Your task to perform on an android device: Open the web browser Image 0: 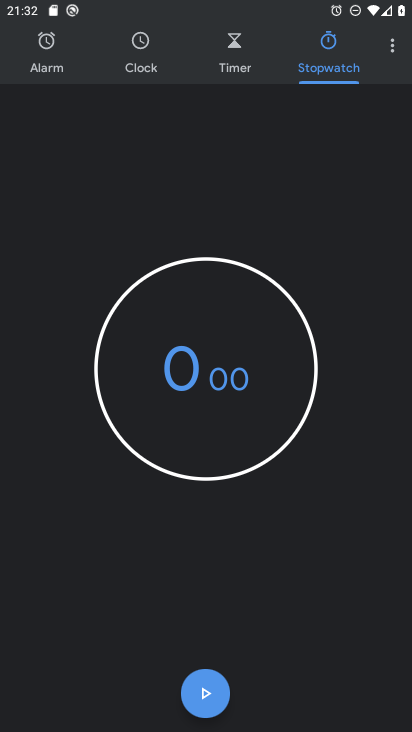
Step 0: press home button
Your task to perform on an android device: Open the web browser Image 1: 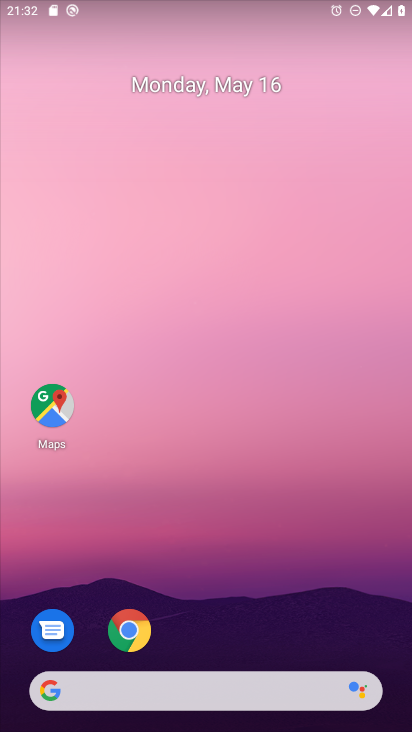
Step 1: click (132, 631)
Your task to perform on an android device: Open the web browser Image 2: 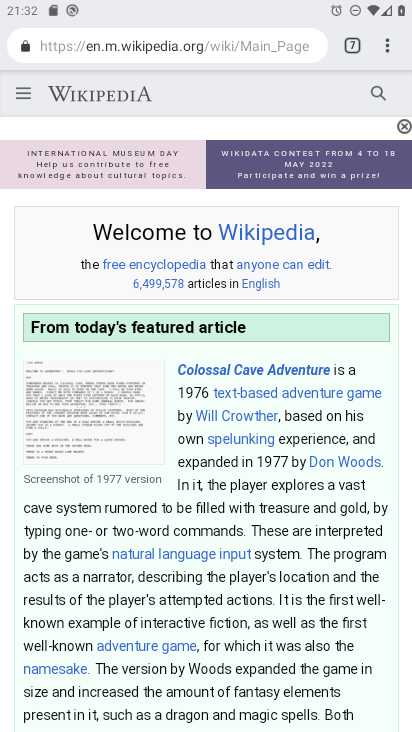
Step 2: task complete